Your task to perform on an android device: Go to Maps Image 0: 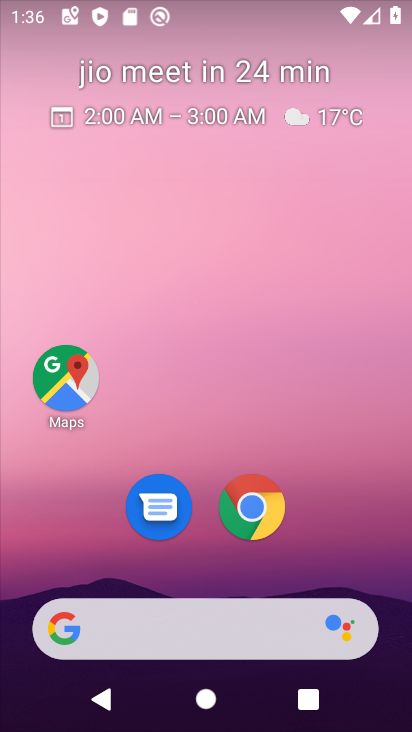
Step 0: drag from (334, 507) to (284, 113)
Your task to perform on an android device: Go to Maps Image 1: 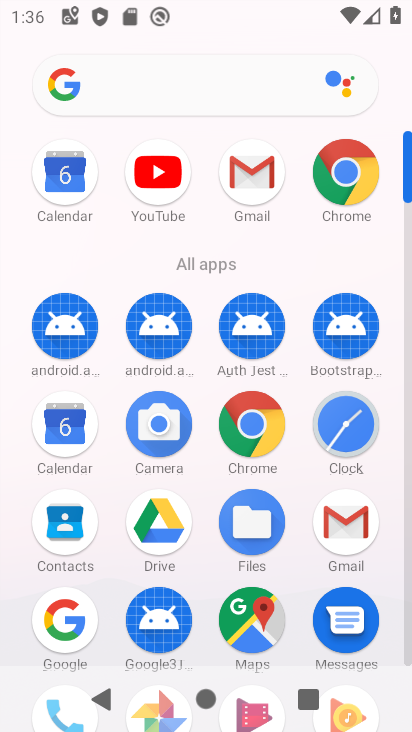
Step 1: drag from (23, 550) to (27, 205)
Your task to perform on an android device: Go to Maps Image 2: 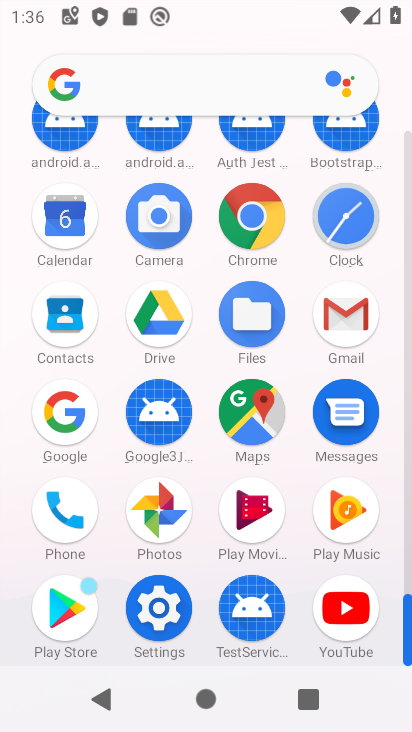
Step 2: click (256, 410)
Your task to perform on an android device: Go to Maps Image 3: 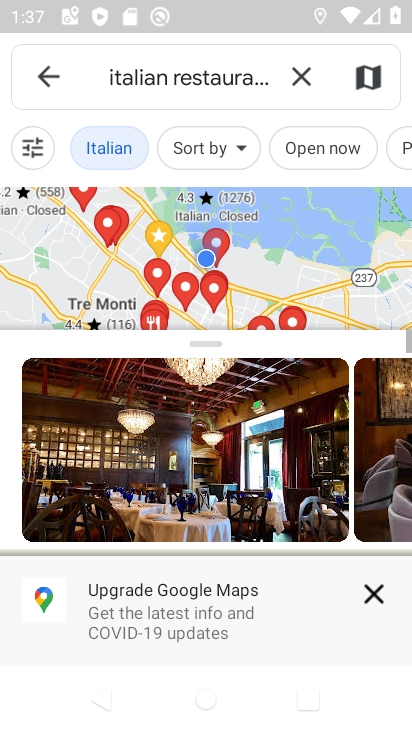
Step 3: click (60, 59)
Your task to perform on an android device: Go to Maps Image 4: 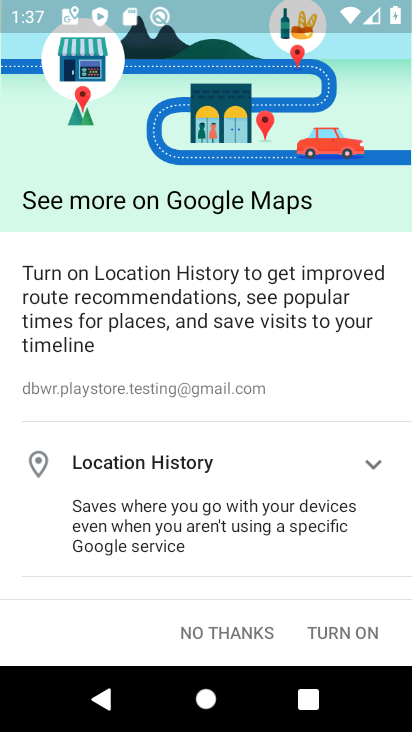
Step 4: click (224, 637)
Your task to perform on an android device: Go to Maps Image 5: 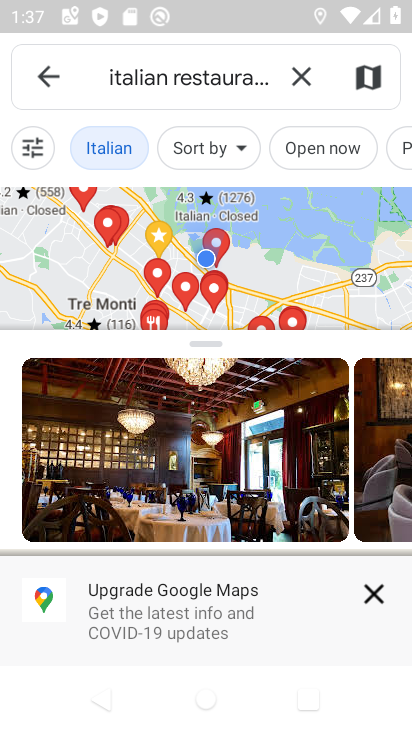
Step 5: click (303, 73)
Your task to perform on an android device: Go to Maps Image 6: 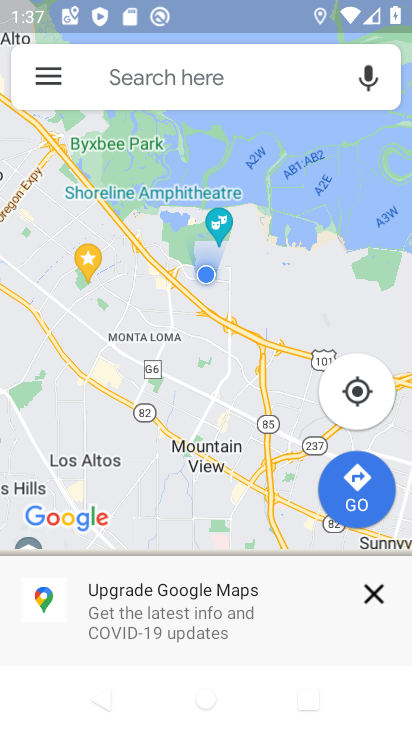
Step 6: task complete